Your task to perform on an android device: Check the news Image 0: 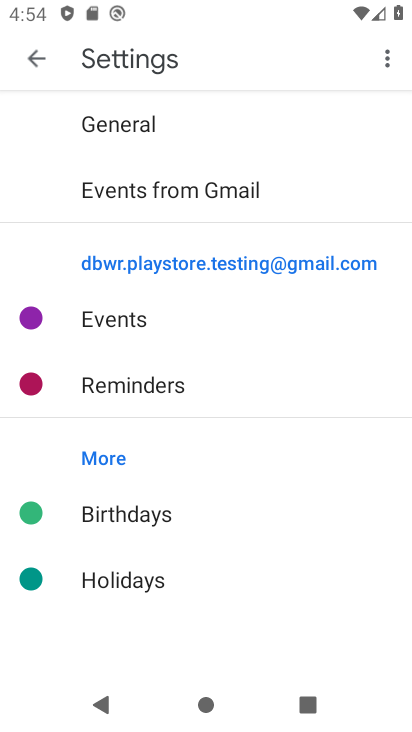
Step 0: press home button
Your task to perform on an android device: Check the news Image 1: 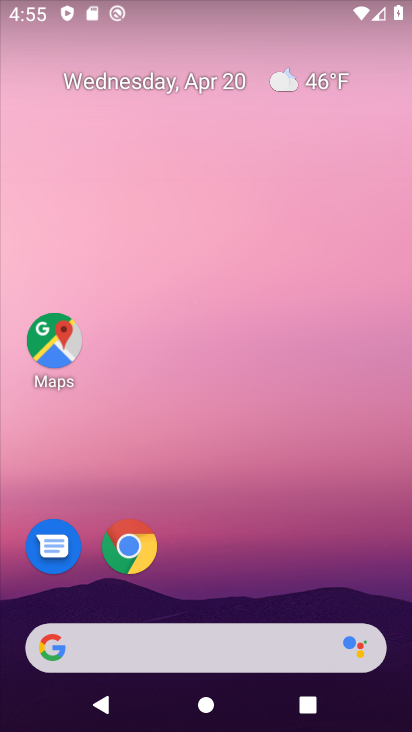
Step 1: drag from (278, 406) to (295, 11)
Your task to perform on an android device: Check the news Image 2: 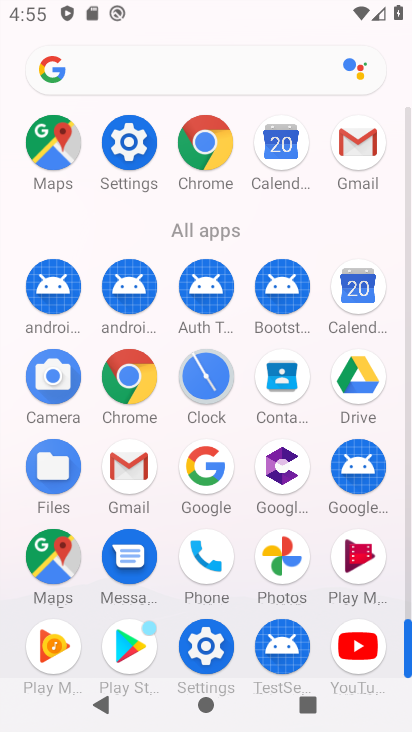
Step 2: click (201, 162)
Your task to perform on an android device: Check the news Image 3: 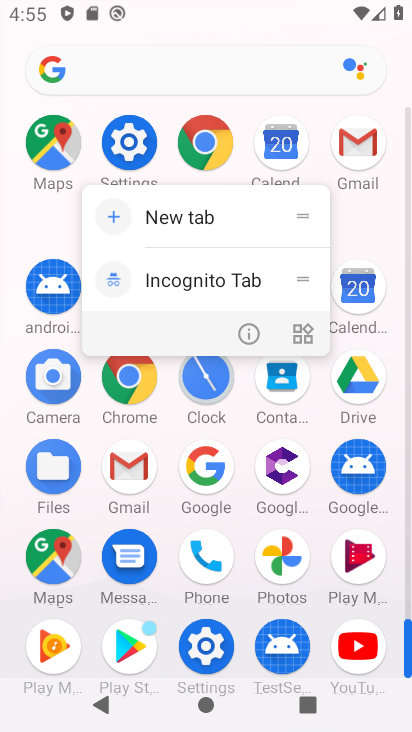
Step 3: click (201, 161)
Your task to perform on an android device: Check the news Image 4: 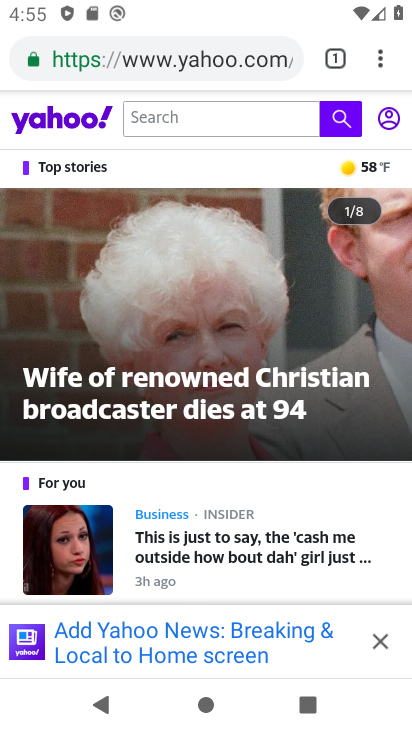
Step 4: task complete